Your task to perform on an android device: Go to Google Image 0: 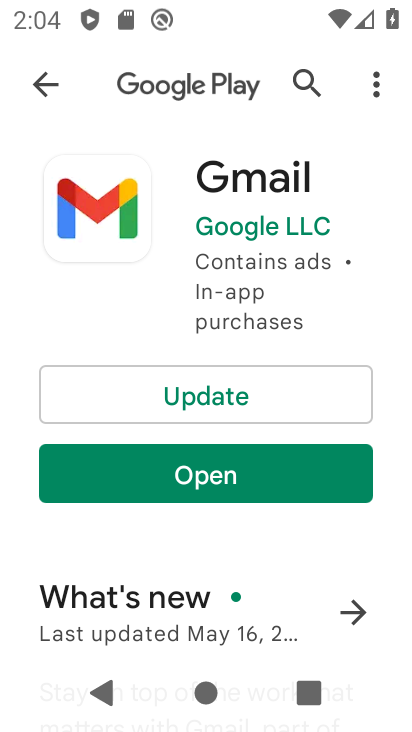
Step 0: press back button
Your task to perform on an android device: Go to Google Image 1: 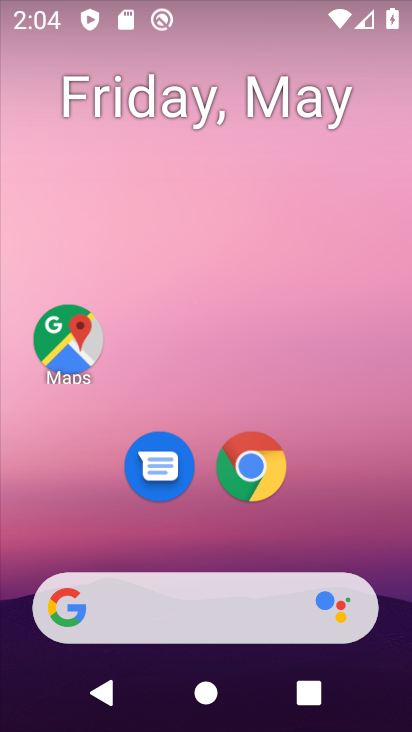
Step 1: click (249, 480)
Your task to perform on an android device: Go to Google Image 2: 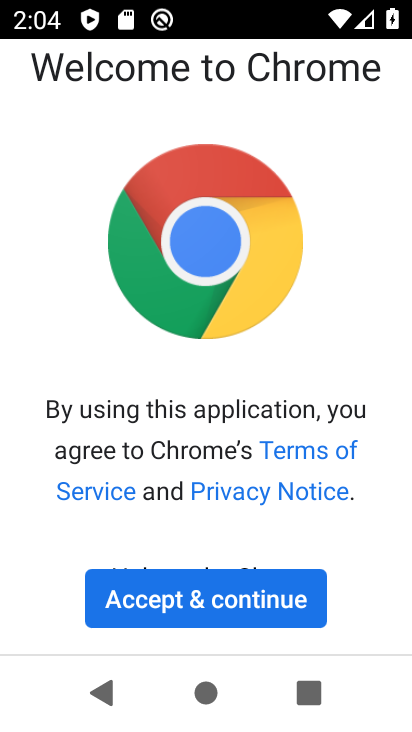
Step 2: click (218, 613)
Your task to perform on an android device: Go to Google Image 3: 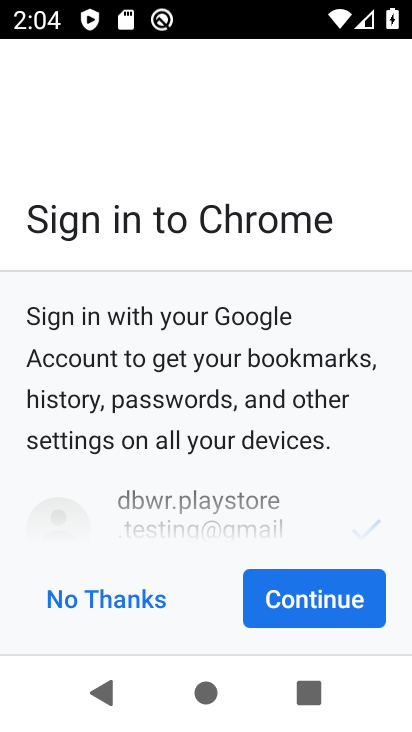
Step 3: click (299, 588)
Your task to perform on an android device: Go to Google Image 4: 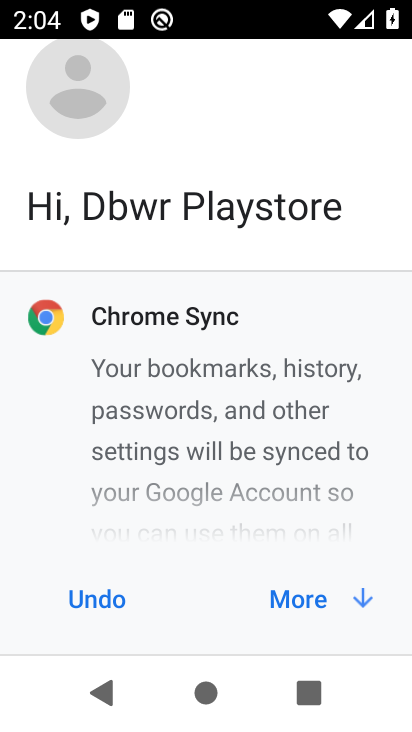
Step 4: click (299, 588)
Your task to perform on an android device: Go to Google Image 5: 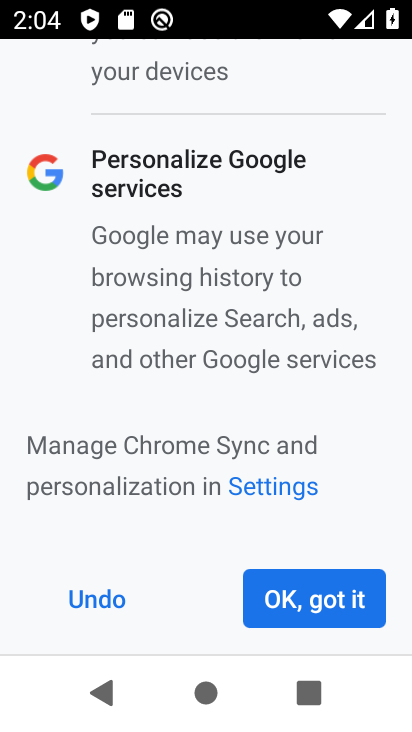
Step 5: click (299, 588)
Your task to perform on an android device: Go to Google Image 6: 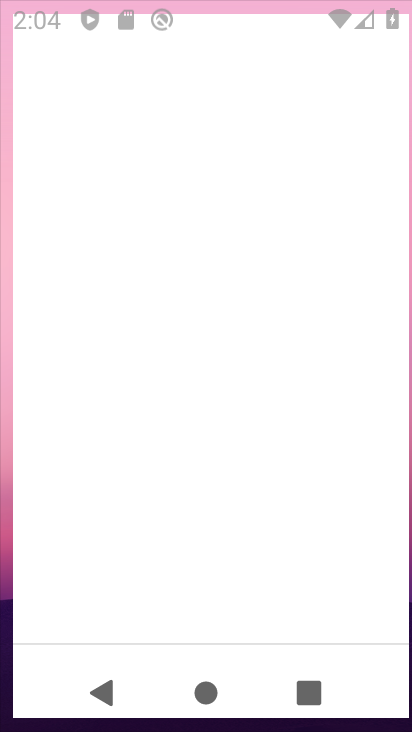
Step 6: click (299, 588)
Your task to perform on an android device: Go to Google Image 7: 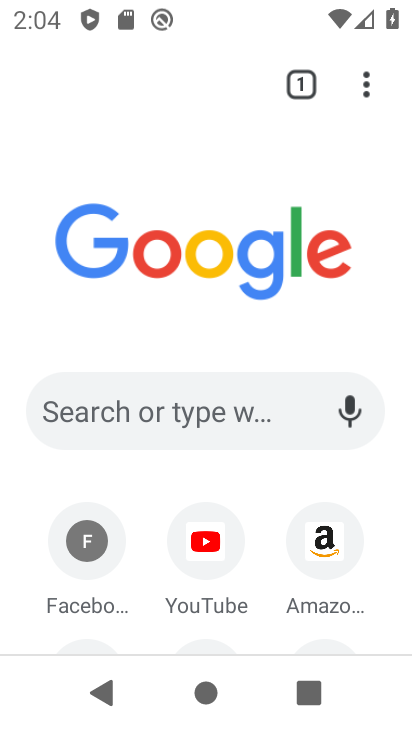
Step 7: task complete